Your task to perform on an android device: Show me popular videos on Youtube Image 0: 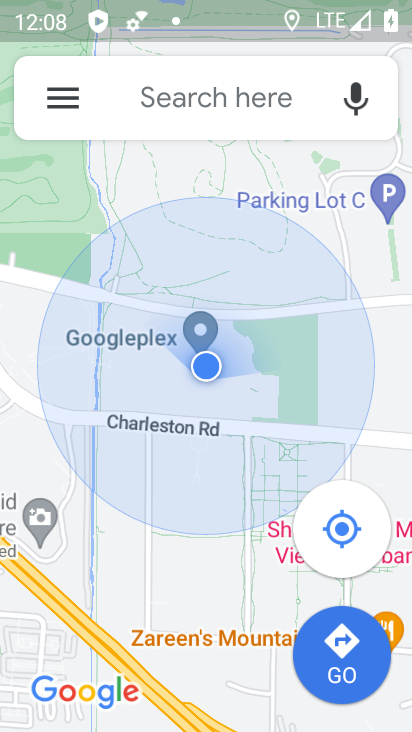
Step 0: press home button
Your task to perform on an android device: Show me popular videos on Youtube Image 1: 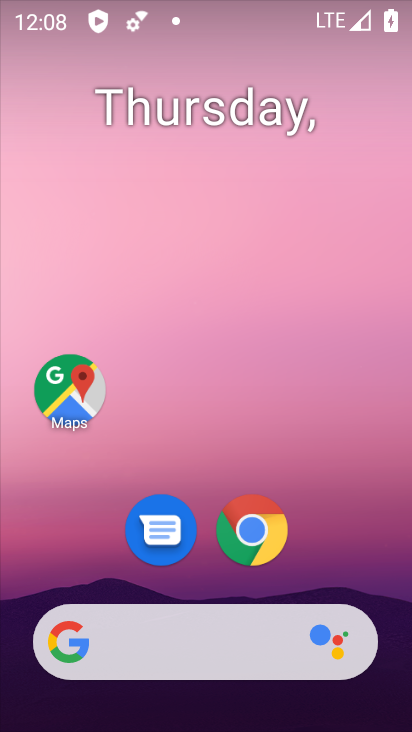
Step 1: drag from (203, 617) to (227, 62)
Your task to perform on an android device: Show me popular videos on Youtube Image 2: 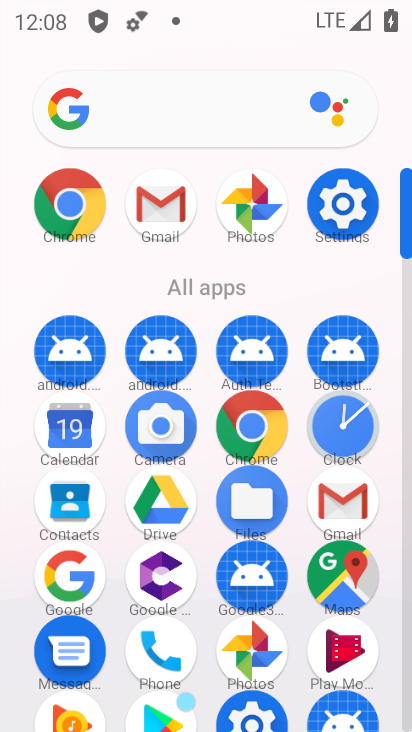
Step 2: drag from (208, 632) to (207, 85)
Your task to perform on an android device: Show me popular videos on Youtube Image 3: 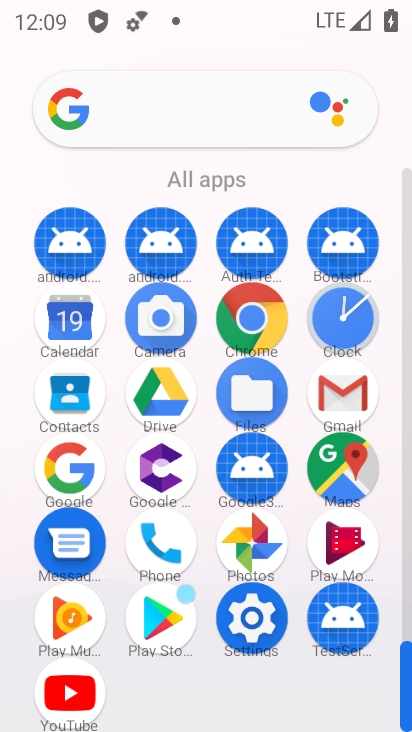
Step 3: click (82, 688)
Your task to perform on an android device: Show me popular videos on Youtube Image 4: 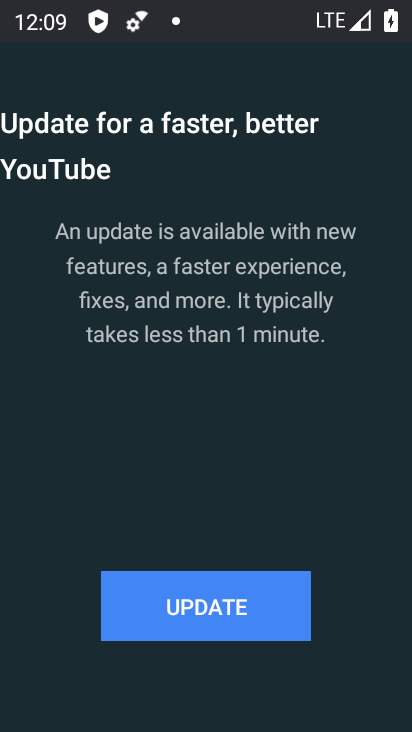
Step 4: click (180, 616)
Your task to perform on an android device: Show me popular videos on Youtube Image 5: 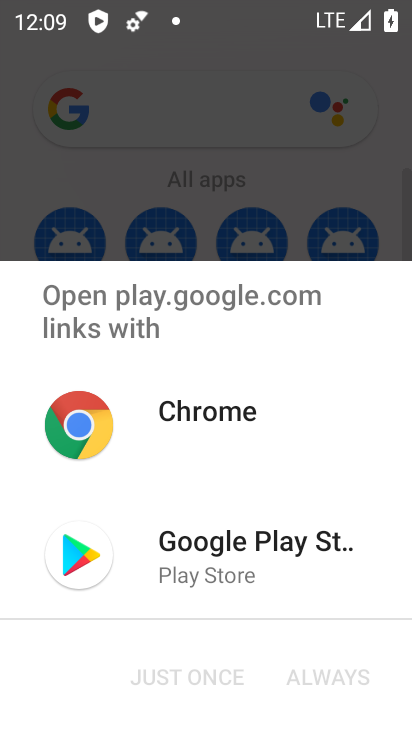
Step 5: click (244, 577)
Your task to perform on an android device: Show me popular videos on Youtube Image 6: 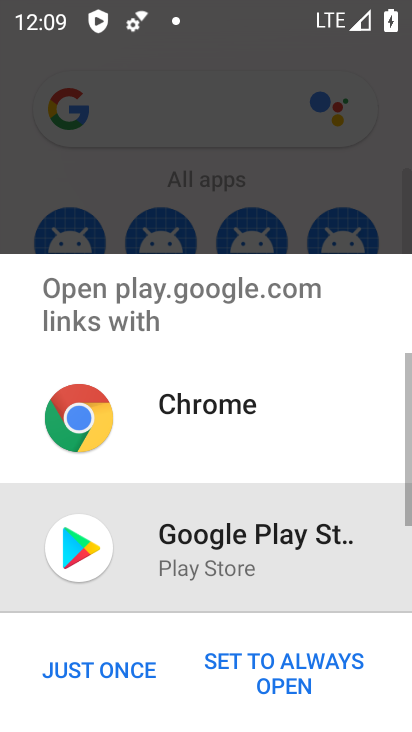
Step 6: click (108, 673)
Your task to perform on an android device: Show me popular videos on Youtube Image 7: 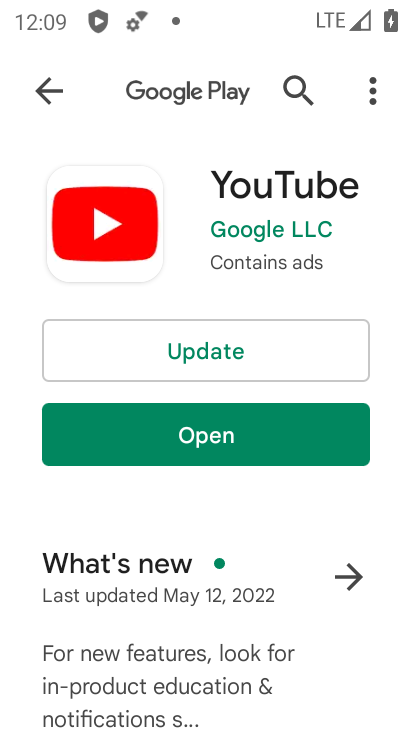
Step 7: click (156, 354)
Your task to perform on an android device: Show me popular videos on Youtube Image 8: 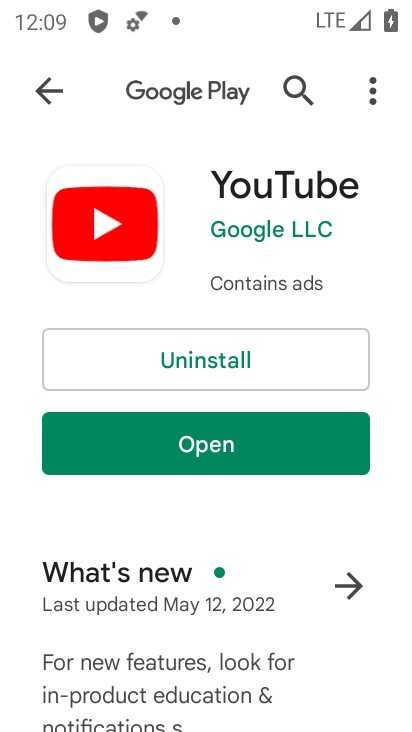
Step 8: click (245, 444)
Your task to perform on an android device: Show me popular videos on Youtube Image 9: 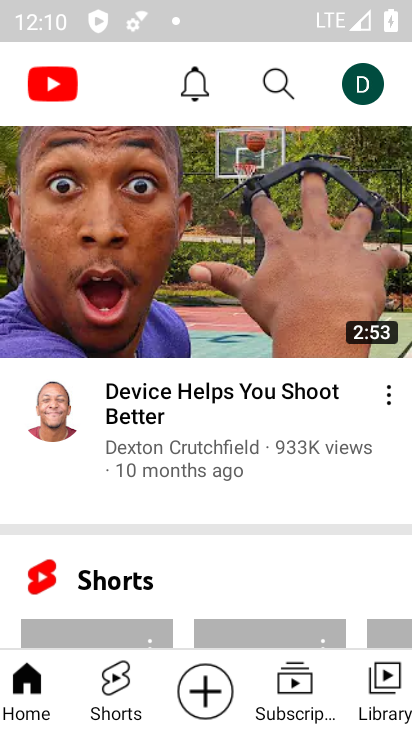
Step 9: task complete